Your task to perform on an android device: Open Google Chrome and open the bookmarks view Image 0: 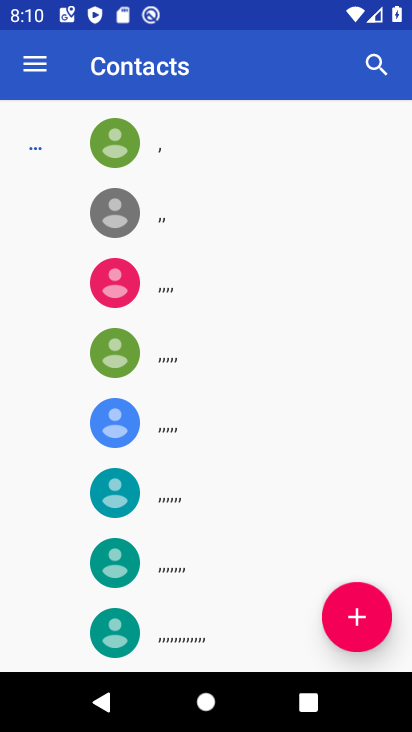
Step 0: press home button
Your task to perform on an android device: Open Google Chrome and open the bookmarks view Image 1: 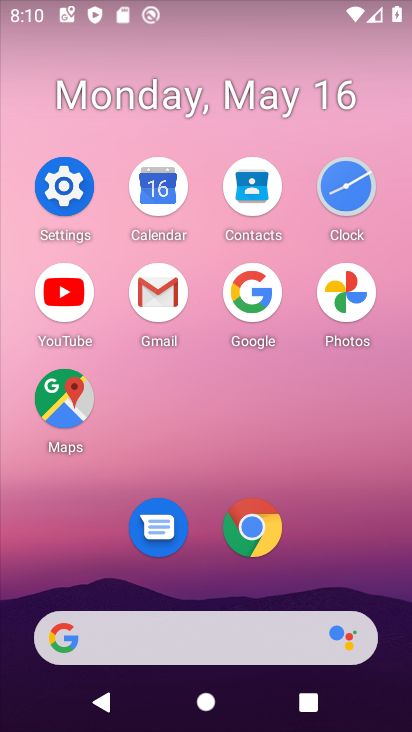
Step 1: click (241, 506)
Your task to perform on an android device: Open Google Chrome and open the bookmarks view Image 2: 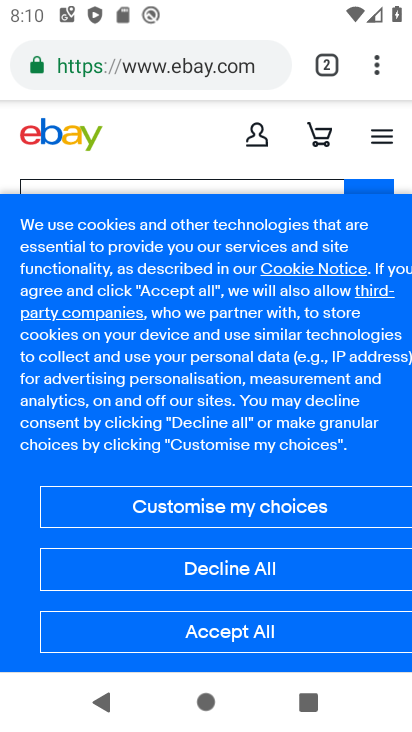
Step 2: click (386, 56)
Your task to perform on an android device: Open Google Chrome and open the bookmarks view Image 3: 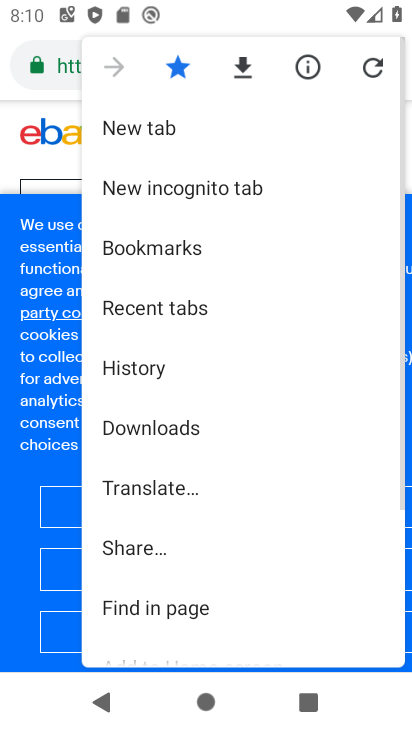
Step 3: click (195, 252)
Your task to perform on an android device: Open Google Chrome and open the bookmarks view Image 4: 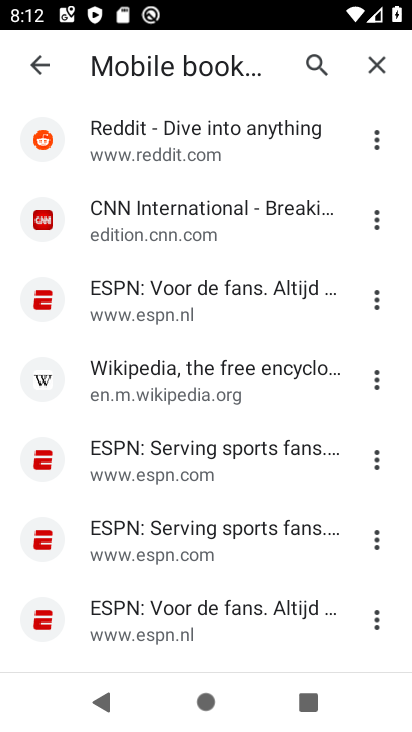
Step 4: task complete